Your task to perform on an android device: Search for macbook pro 13 inch on bestbuy.com, select the first entry, add it to the cart, then select checkout. Image 0: 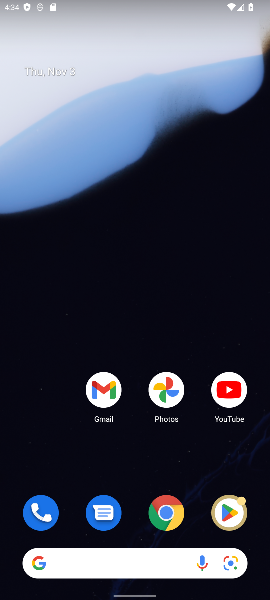
Step 0: click (157, 510)
Your task to perform on an android device: Search for macbook pro 13 inch on bestbuy.com, select the first entry, add it to the cart, then select checkout. Image 1: 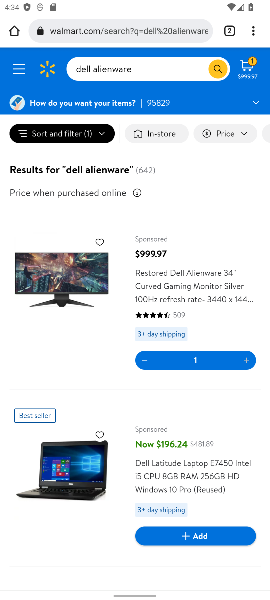
Step 1: click (231, 30)
Your task to perform on an android device: Search for macbook pro 13 inch on bestbuy.com, select the first entry, add it to the cart, then select checkout. Image 2: 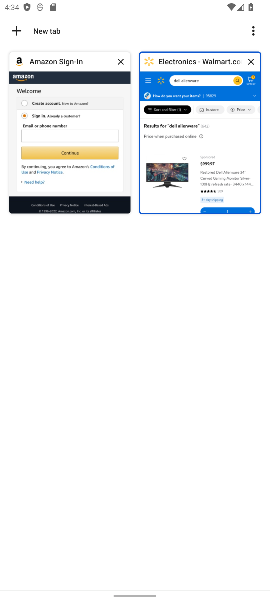
Step 2: click (15, 31)
Your task to perform on an android device: Search for macbook pro 13 inch on bestbuy.com, select the first entry, add it to the cart, then select checkout. Image 3: 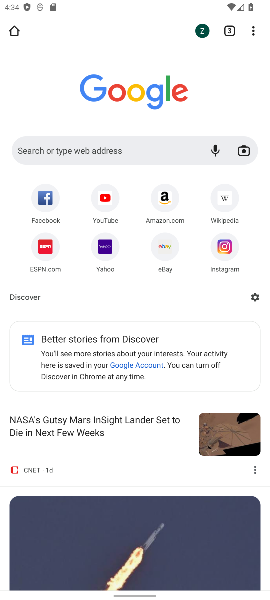
Step 3: click (168, 149)
Your task to perform on an android device: Search for macbook pro 13 inch on bestbuy.com, select the first entry, add it to the cart, then select checkout. Image 4: 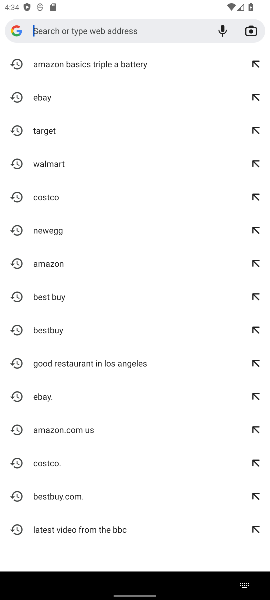
Step 4: click (33, 291)
Your task to perform on an android device: Search for macbook pro 13 inch on bestbuy.com, select the first entry, add it to the cart, then select checkout. Image 5: 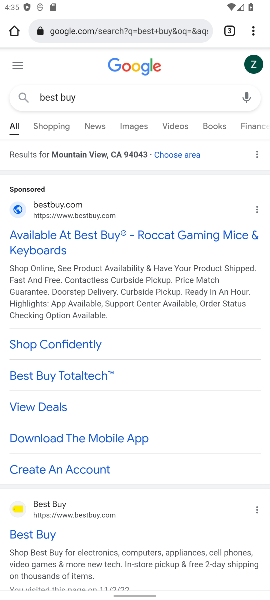
Step 5: click (96, 168)
Your task to perform on an android device: Search for macbook pro 13 inch on bestbuy.com, select the first entry, add it to the cart, then select checkout. Image 6: 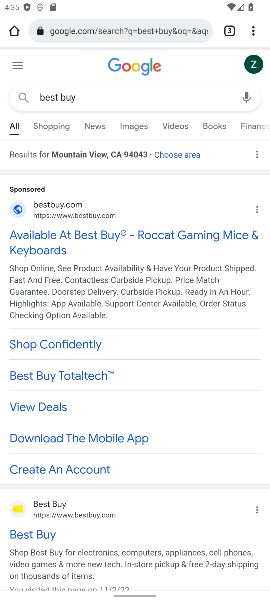
Step 6: drag from (155, 576) to (200, 210)
Your task to perform on an android device: Search for macbook pro 13 inch on bestbuy.com, select the first entry, add it to the cart, then select checkout. Image 7: 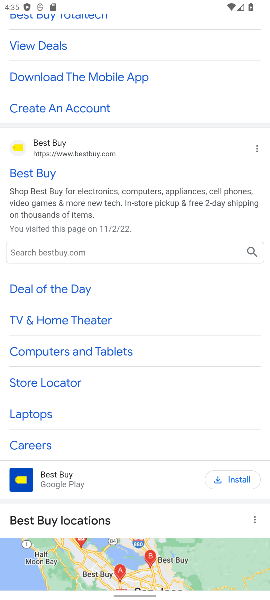
Step 7: click (85, 248)
Your task to perform on an android device: Search for macbook pro 13 inch on bestbuy.com, select the first entry, add it to the cart, then select checkout. Image 8: 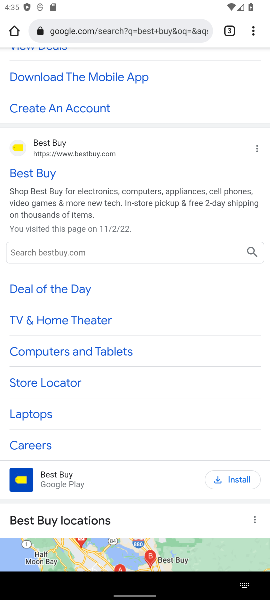
Step 8: type "macbook pro 13 inch"
Your task to perform on an android device: Search for macbook pro 13 inch on bestbuy.com, select the first entry, add it to the cart, then select checkout. Image 9: 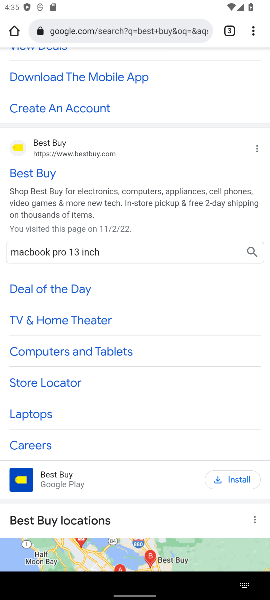
Step 9: click (248, 248)
Your task to perform on an android device: Search for macbook pro 13 inch on bestbuy.com, select the first entry, add it to the cart, then select checkout. Image 10: 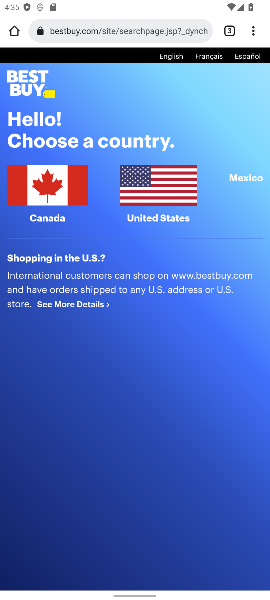
Step 10: click (151, 191)
Your task to perform on an android device: Search for macbook pro 13 inch on bestbuy.com, select the first entry, add it to the cart, then select checkout. Image 11: 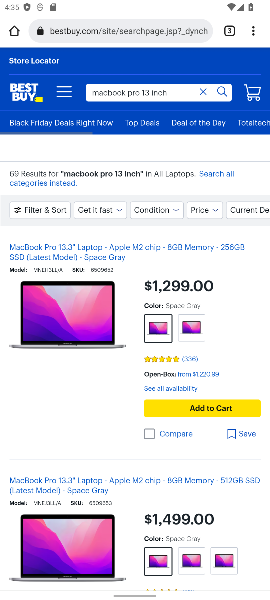
Step 11: click (210, 409)
Your task to perform on an android device: Search for macbook pro 13 inch on bestbuy.com, select the first entry, add it to the cart, then select checkout. Image 12: 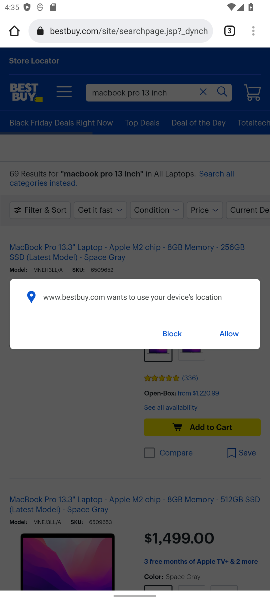
Step 12: click (171, 339)
Your task to perform on an android device: Search for macbook pro 13 inch on bestbuy.com, select the first entry, add it to the cart, then select checkout. Image 13: 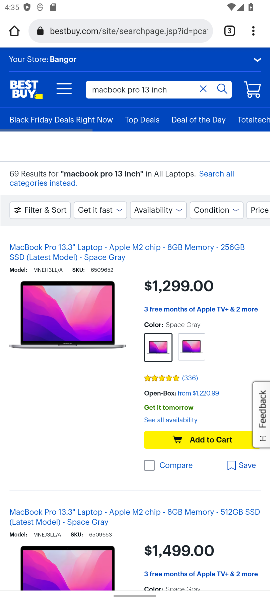
Step 13: click (196, 438)
Your task to perform on an android device: Search for macbook pro 13 inch on bestbuy.com, select the first entry, add it to the cart, then select checkout. Image 14: 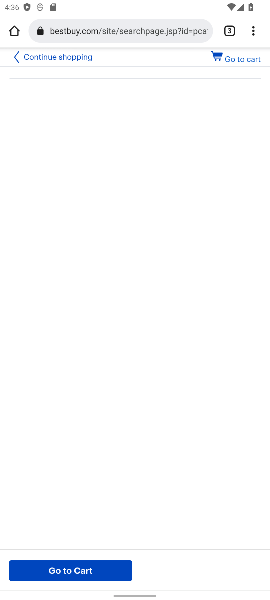
Step 14: click (251, 98)
Your task to perform on an android device: Search for macbook pro 13 inch on bestbuy.com, select the first entry, add it to the cart, then select checkout. Image 15: 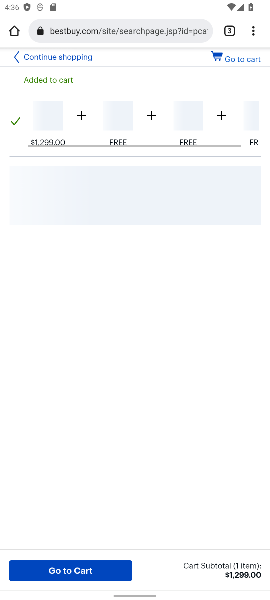
Step 15: click (79, 574)
Your task to perform on an android device: Search for macbook pro 13 inch on bestbuy.com, select the first entry, add it to the cart, then select checkout. Image 16: 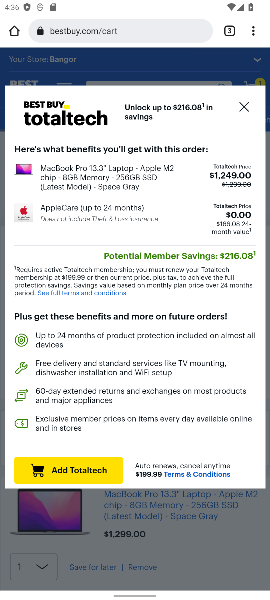
Step 16: click (146, 370)
Your task to perform on an android device: Search for macbook pro 13 inch on bestbuy.com, select the first entry, add it to the cart, then select checkout. Image 17: 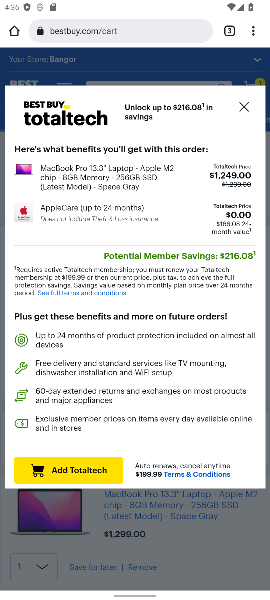
Step 17: click (244, 105)
Your task to perform on an android device: Search for macbook pro 13 inch on bestbuy.com, select the first entry, add it to the cart, then select checkout. Image 18: 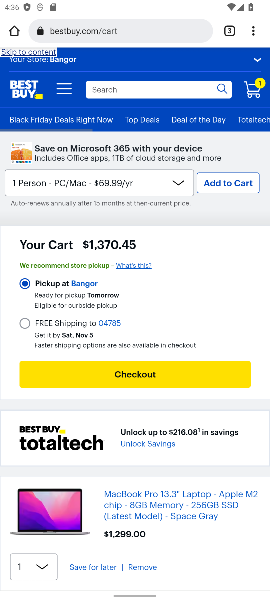
Step 18: click (136, 375)
Your task to perform on an android device: Search for macbook pro 13 inch on bestbuy.com, select the first entry, add it to the cart, then select checkout. Image 19: 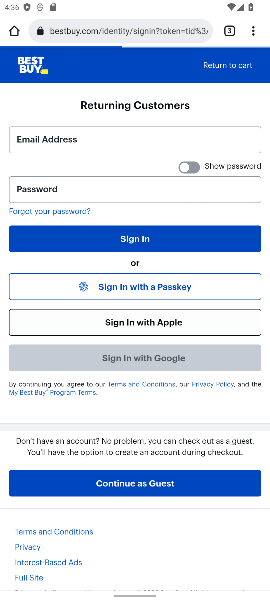
Step 19: task complete